Your task to perform on an android device: Install the eBay app Image 0: 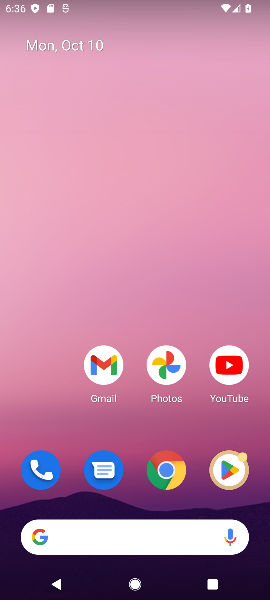
Step 0: drag from (148, 504) to (161, 66)
Your task to perform on an android device: Install the eBay app Image 1: 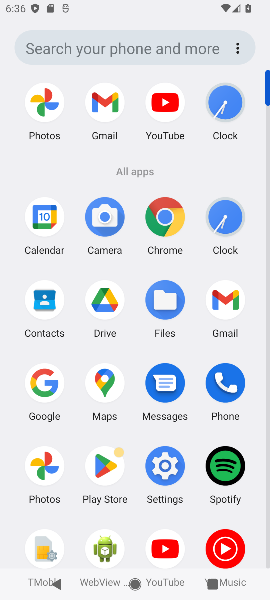
Step 1: click (110, 460)
Your task to perform on an android device: Install the eBay app Image 2: 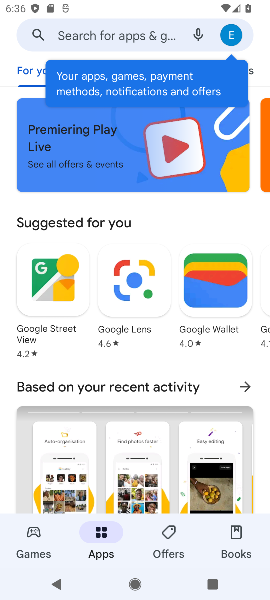
Step 2: click (162, 29)
Your task to perform on an android device: Install the eBay app Image 3: 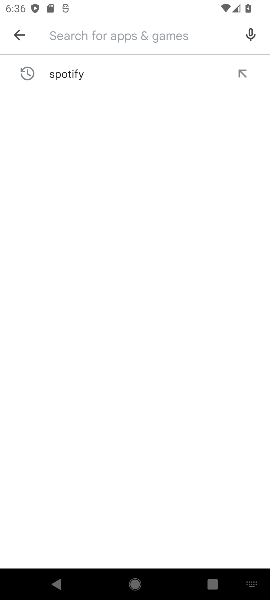
Step 3: type "ebay"
Your task to perform on an android device: Install the eBay app Image 4: 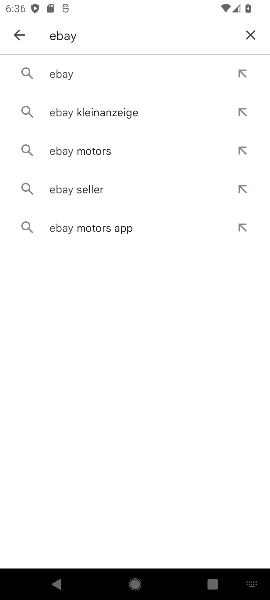
Step 4: click (94, 74)
Your task to perform on an android device: Install the eBay app Image 5: 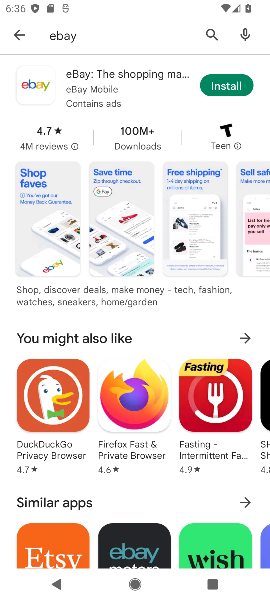
Step 5: click (240, 91)
Your task to perform on an android device: Install the eBay app Image 6: 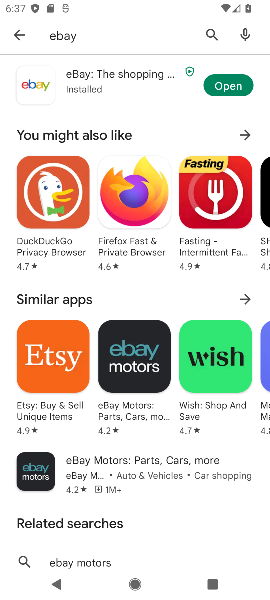
Step 6: task complete